Your task to perform on an android device: set the stopwatch Image 0: 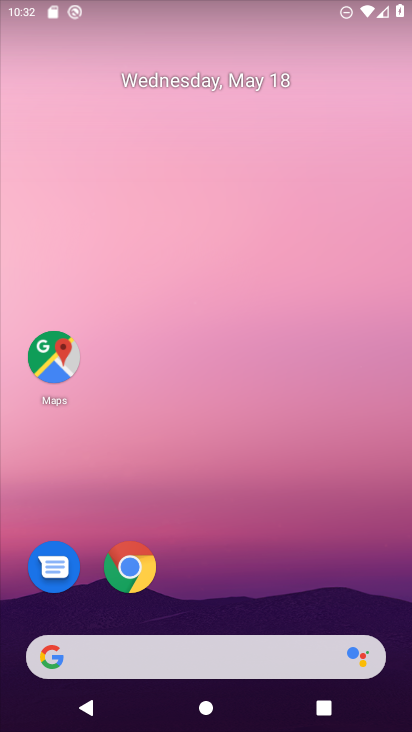
Step 0: drag from (269, 683) to (262, 151)
Your task to perform on an android device: set the stopwatch Image 1: 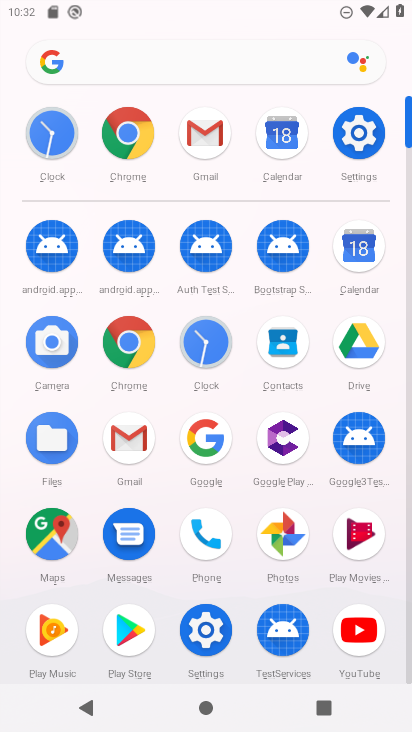
Step 1: click (202, 341)
Your task to perform on an android device: set the stopwatch Image 2: 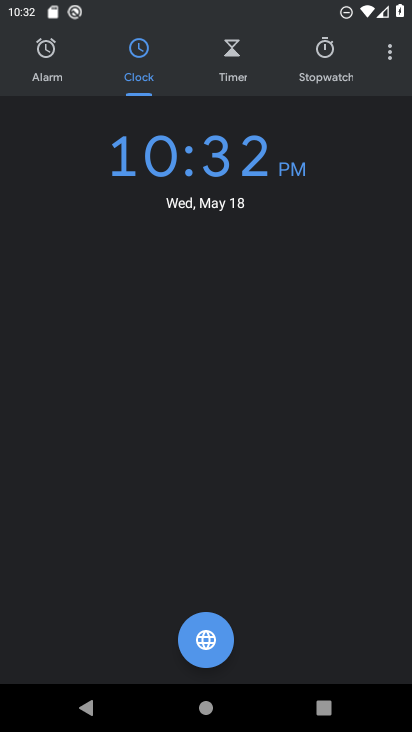
Step 2: click (385, 48)
Your task to perform on an android device: set the stopwatch Image 3: 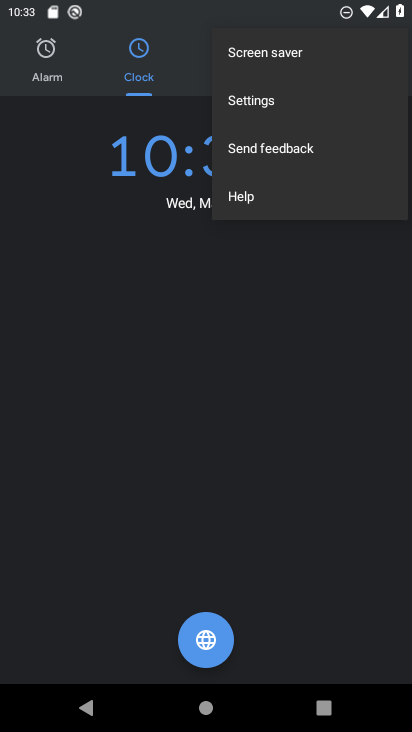
Step 3: click (210, 244)
Your task to perform on an android device: set the stopwatch Image 4: 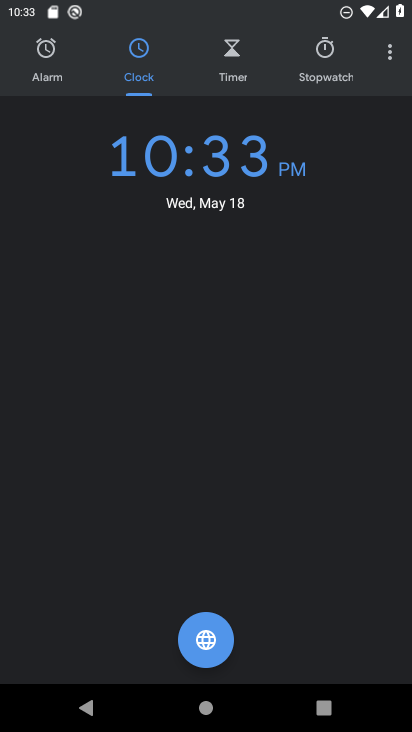
Step 4: click (310, 68)
Your task to perform on an android device: set the stopwatch Image 5: 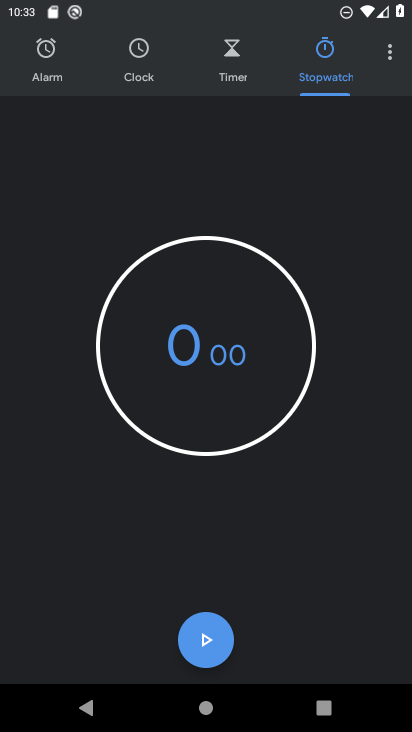
Step 5: task complete